Your task to perform on an android device: check android version Image 0: 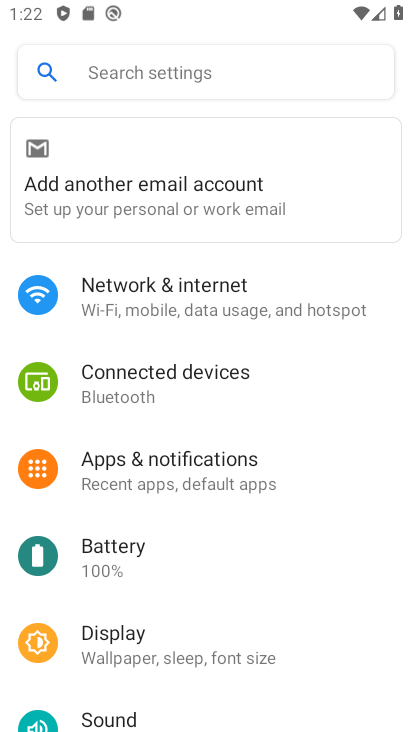
Step 0: press home button
Your task to perform on an android device: check android version Image 1: 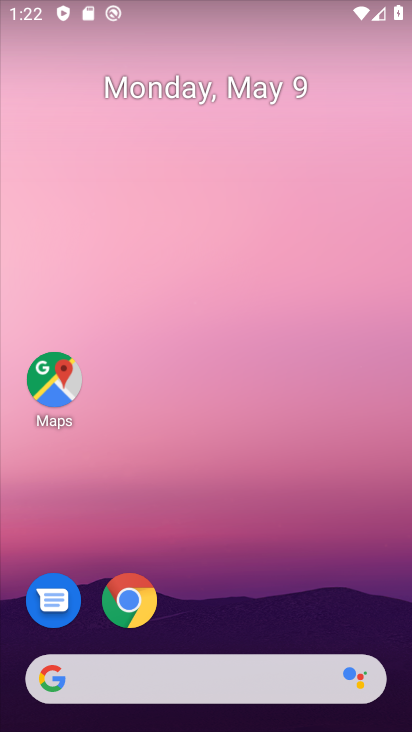
Step 1: drag from (199, 656) to (188, 135)
Your task to perform on an android device: check android version Image 2: 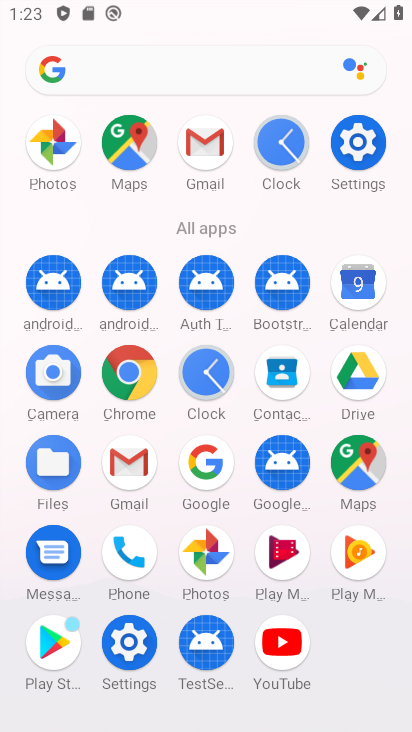
Step 2: click (150, 638)
Your task to perform on an android device: check android version Image 3: 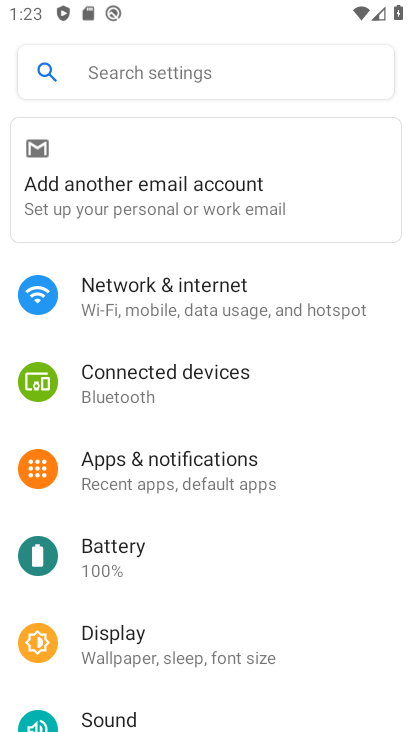
Step 3: drag from (220, 640) to (205, 177)
Your task to perform on an android device: check android version Image 4: 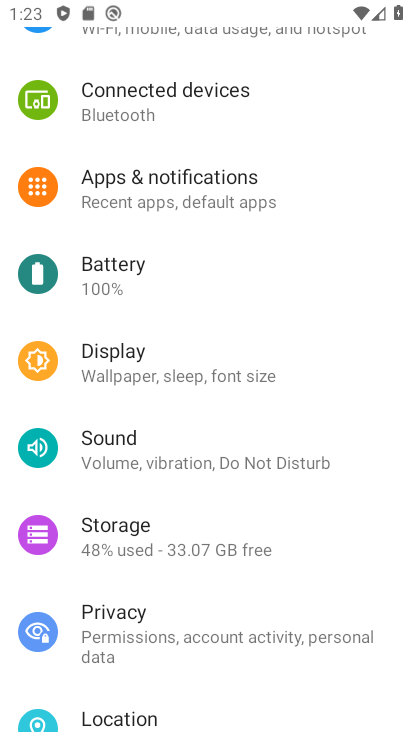
Step 4: drag from (172, 637) to (157, 44)
Your task to perform on an android device: check android version Image 5: 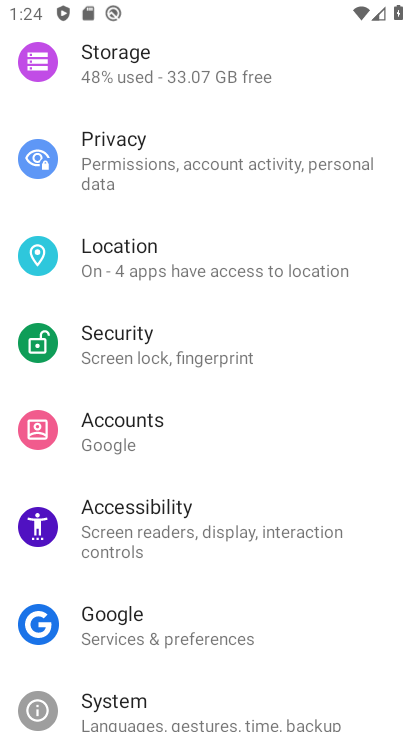
Step 5: drag from (192, 653) to (177, 43)
Your task to perform on an android device: check android version Image 6: 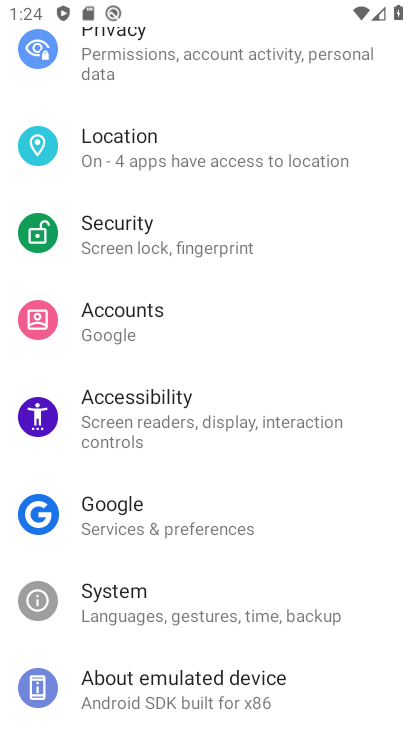
Step 6: click (143, 675)
Your task to perform on an android device: check android version Image 7: 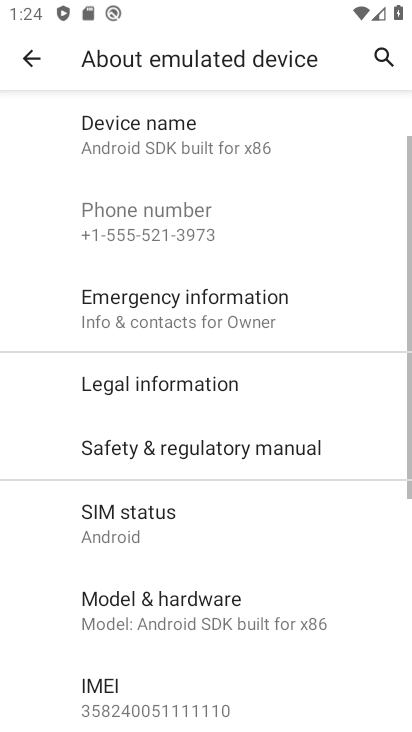
Step 7: drag from (209, 612) to (205, 99)
Your task to perform on an android device: check android version Image 8: 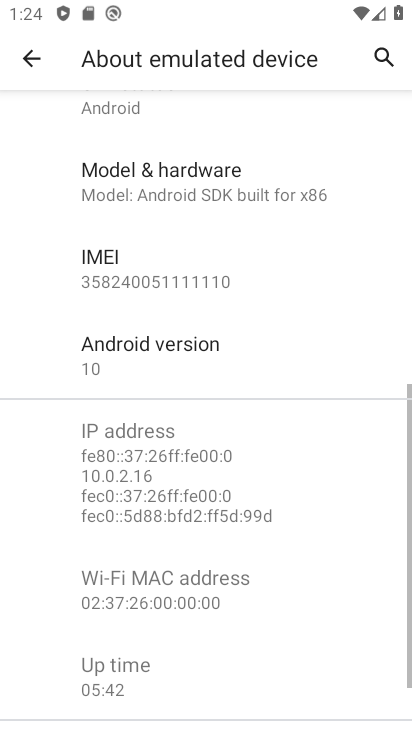
Step 8: click (169, 350)
Your task to perform on an android device: check android version Image 9: 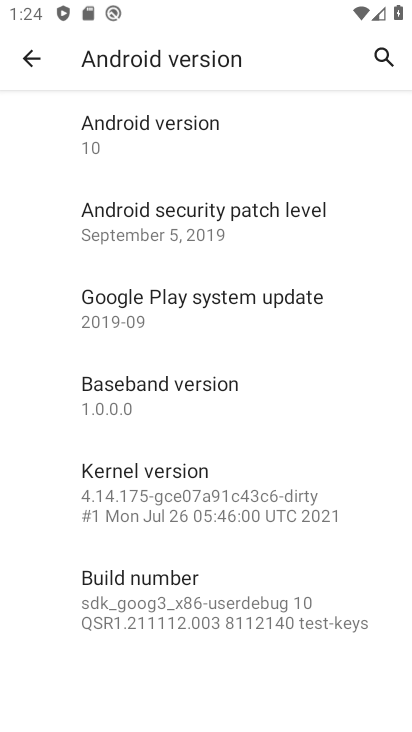
Step 9: task complete